Your task to perform on an android device: stop showing notifications on the lock screen Image 0: 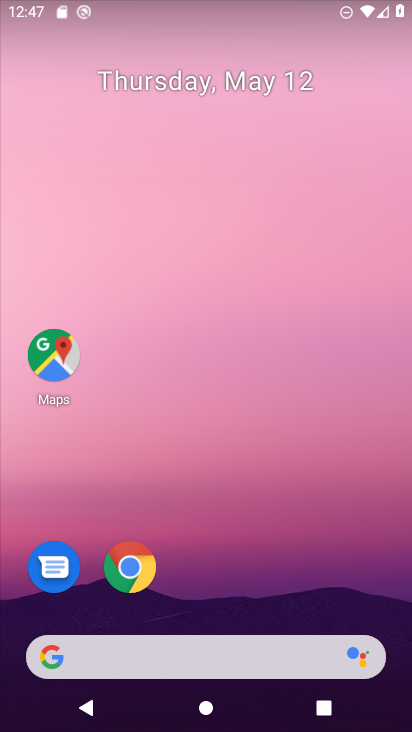
Step 0: drag from (279, 703) to (397, 0)
Your task to perform on an android device: stop showing notifications on the lock screen Image 1: 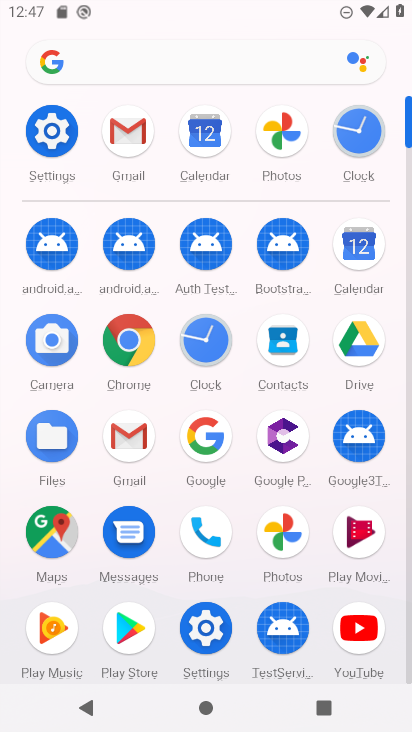
Step 1: click (59, 136)
Your task to perform on an android device: stop showing notifications on the lock screen Image 2: 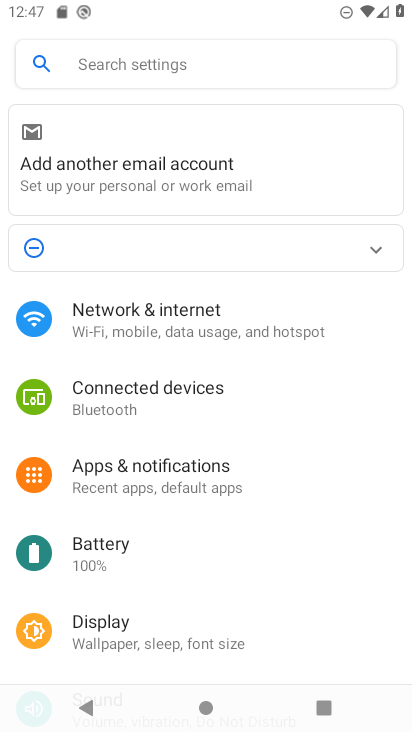
Step 2: click (237, 475)
Your task to perform on an android device: stop showing notifications on the lock screen Image 3: 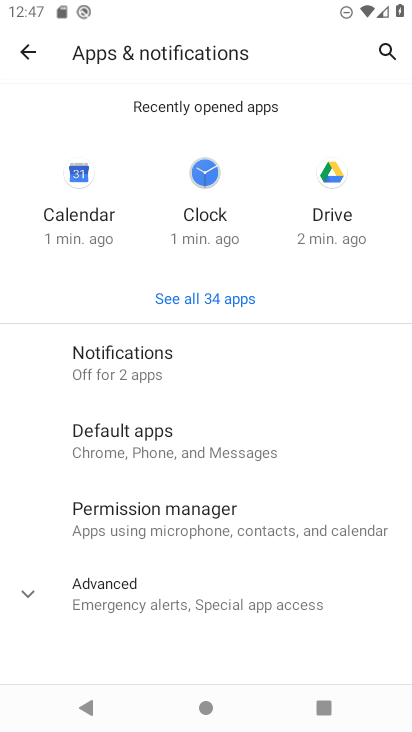
Step 3: drag from (266, 641) to (268, 84)
Your task to perform on an android device: stop showing notifications on the lock screen Image 4: 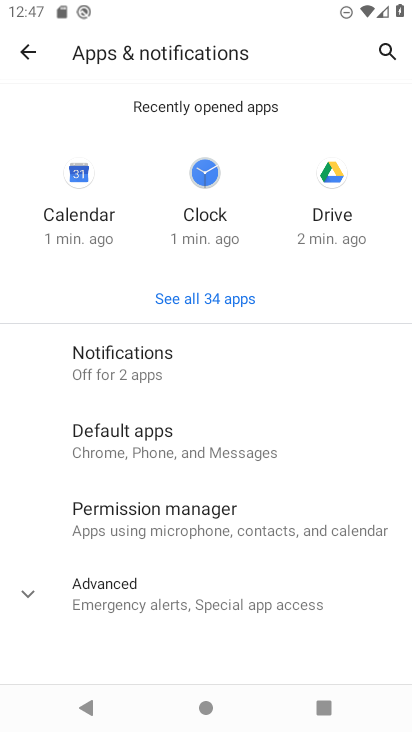
Step 4: click (191, 363)
Your task to perform on an android device: stop showing notifications on the lock screen Image 5: 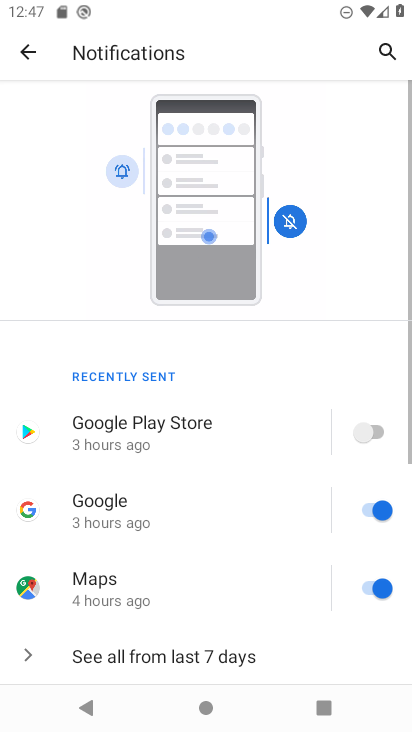
Step 5: drag from (255, 566) to (203, 0)
Your task to perform on an android device: stop showing notifications on the lock screen Image 6: 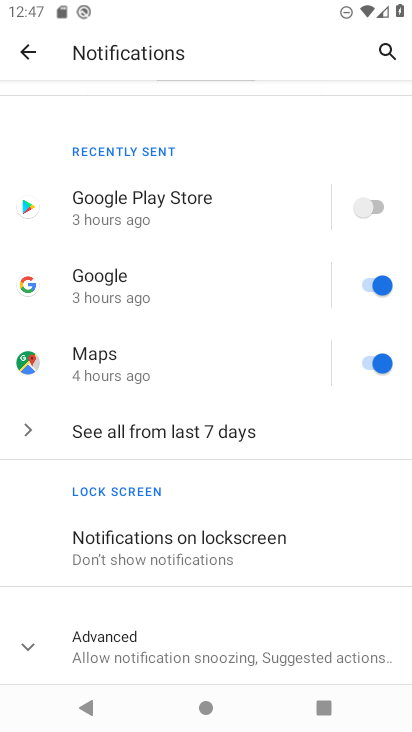
Step 6: click (227, 549)
Your task to perform on an android device: stop showing notifications on the lock screen Image 7: 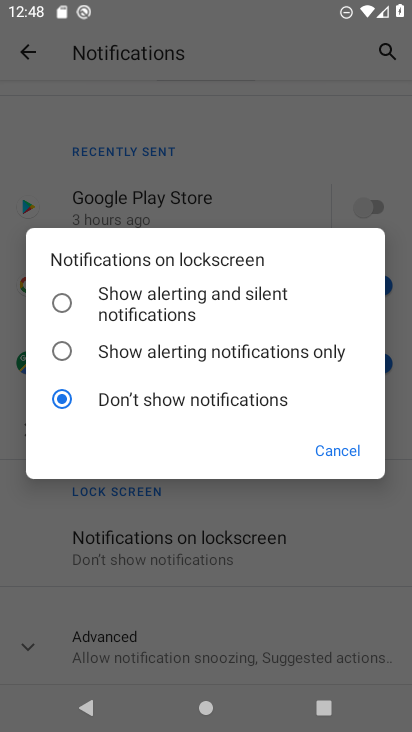
Step 7: task complete